Your task to perform on an android device: toggle airplane mode Image 0: 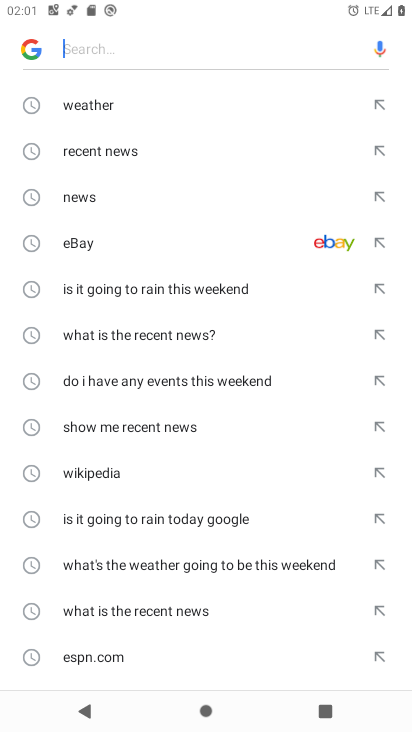
Step 0: drag from (252, 666) to (304, 177)
Your task to perform on an android device: toggle airplane mode Image 1: 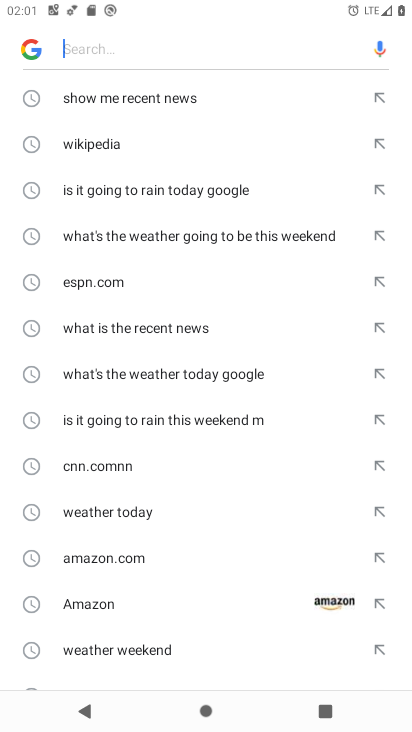
Step 1: press home button
Your task to perform on an android device: toggle airplane mode Image 2: 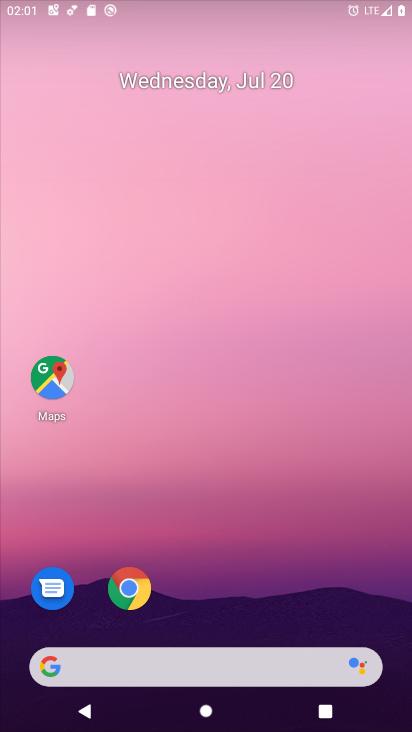
Step 2: drag from (201, 626) to (272, 184)
Your task to perform on an android device: toggle airplane mode Image 3: 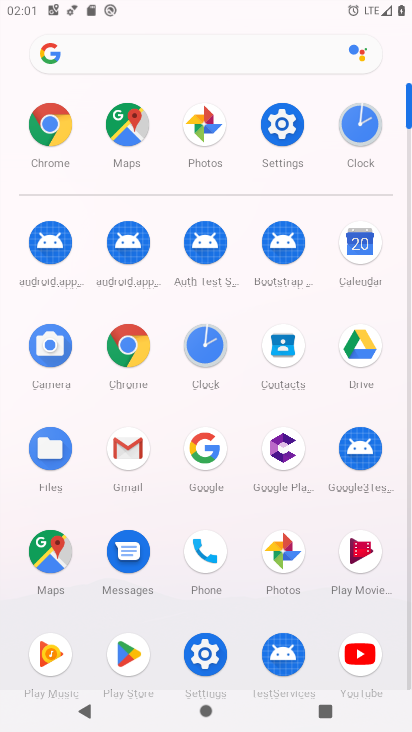
Step 3: click (286, 131)
Your task to perform on an android device: toggle airplane mode Image 4: 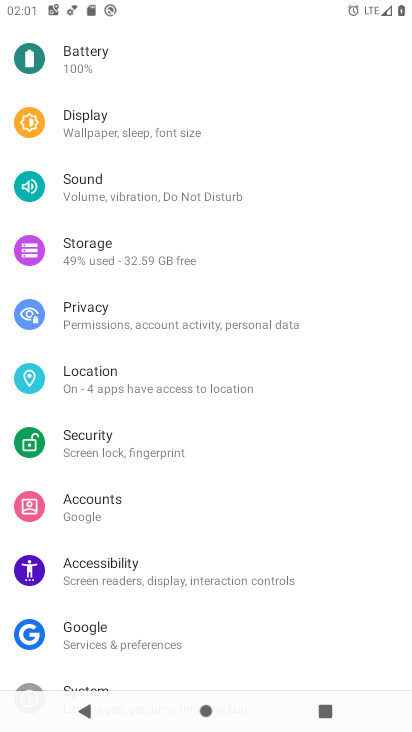
Step 4: drag from (117, 75) to (169, 509)
Your task to perform on an android device: toggle airplane mode Image 5: 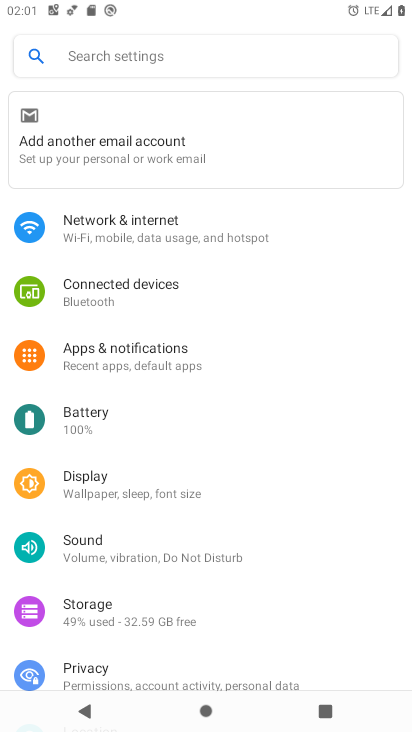
Step 5: click (152, 220)
Your task to perform on an android device: toggle airplane mode Image 6: 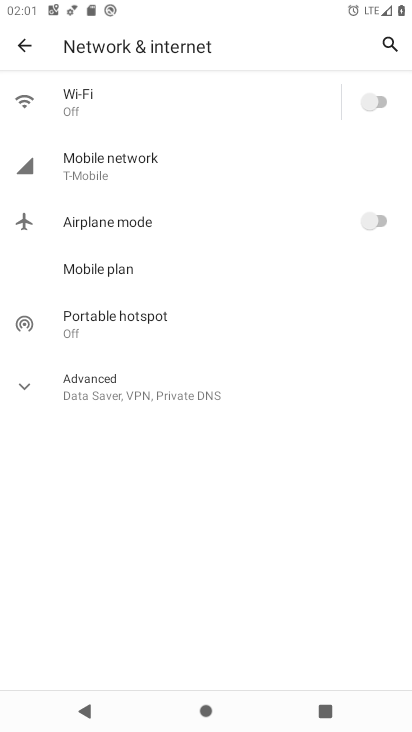
Step 6: drag from (178, 165) to (215, 526)
Your task to perform on an android device: toggle airplane mode Image 7: 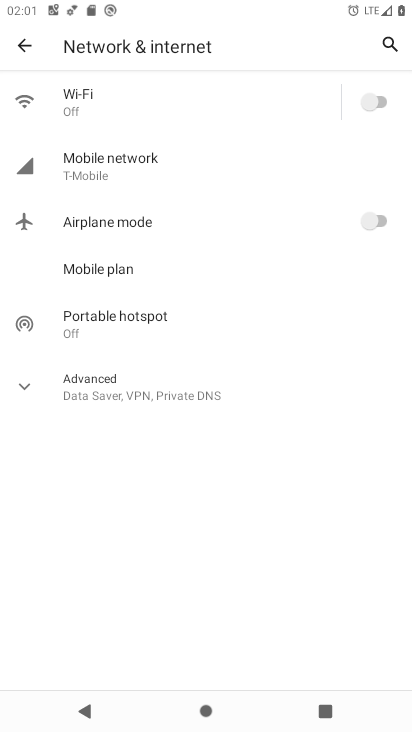
Step 7: click (371, 226)
Your task to perform on an android device: toggle airplane mode Image 8: 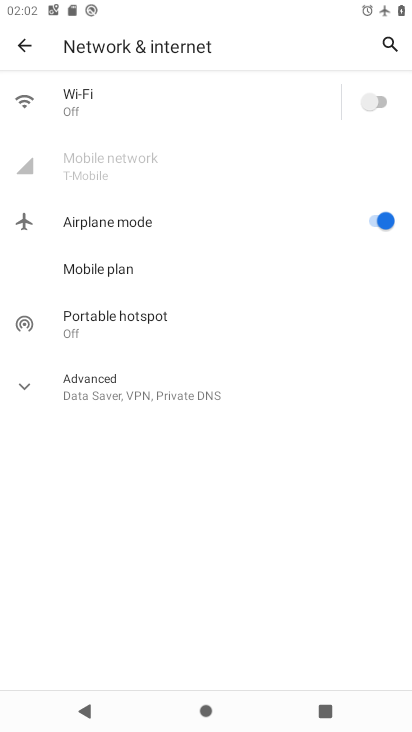
Step 8: task complete